Your task to perform on an android device: move an email to a new category in the gmail app Image 0: 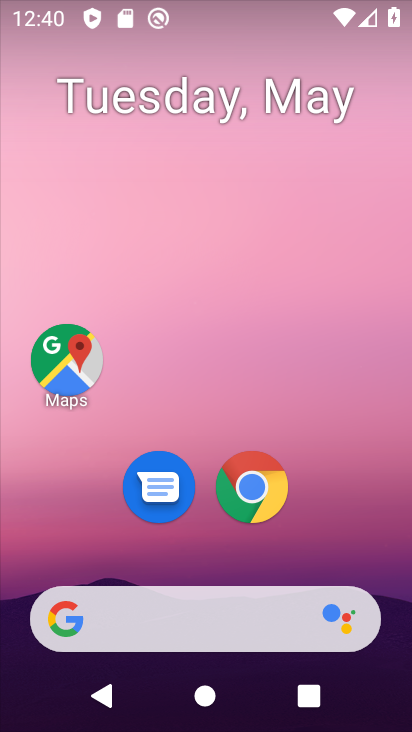
Step 0: drag from (287, 569) to (292, 181)
Your task to perform on an android device: move an email to a new category in the gmail app Image 1: 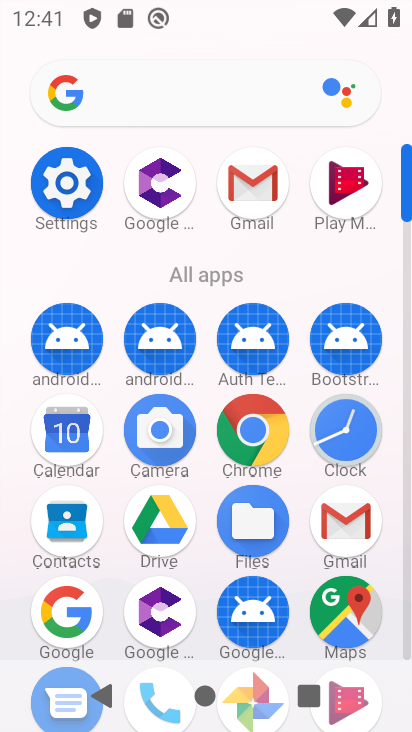
Step 1: click (255, 185)
Your task to perform on an android device: move an email to a new category in the gmail app Image 2: 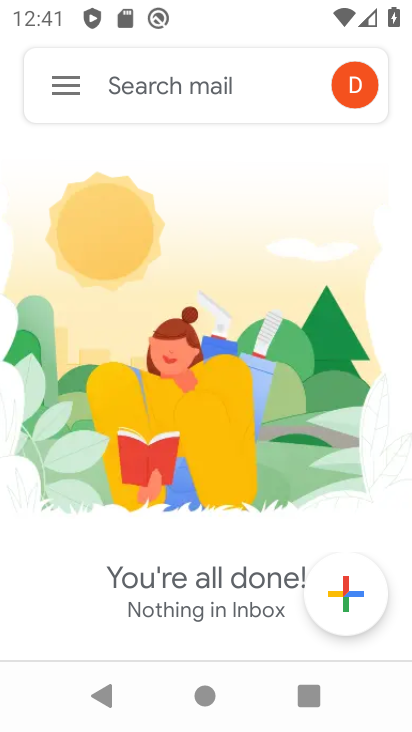
Step 2: click (72, 74)
Your task to perform on an android device: move an email to a new category in the gmail app Image 3: 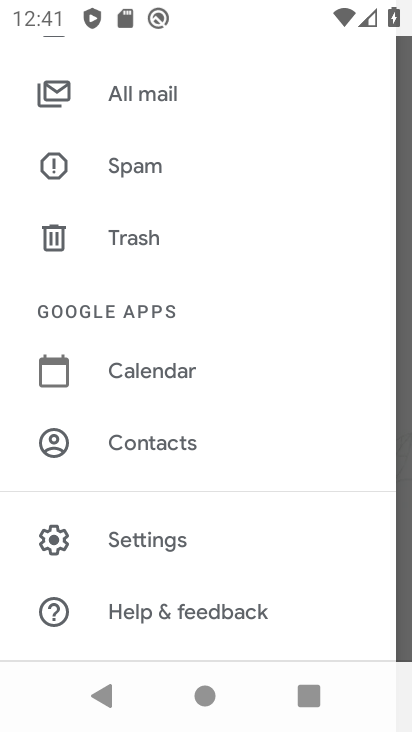
Step 3: click (113, 86)
Your task to perform on an android device: move an email to a new category in the gmail app Image 4: 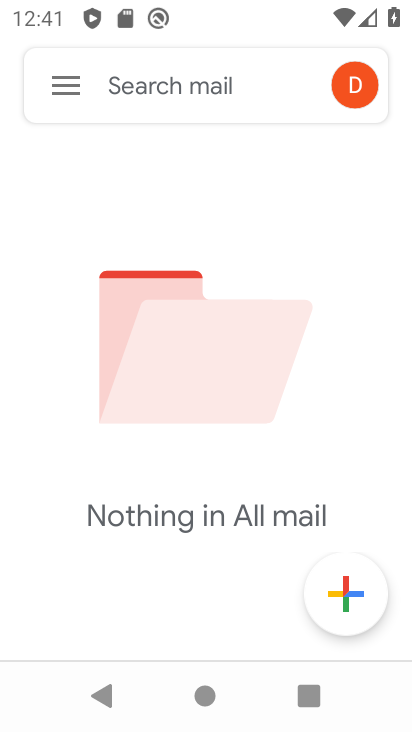
Step 4: task complete